Your task to perform on an android device: Show me popular videos on Youtube Image 0: 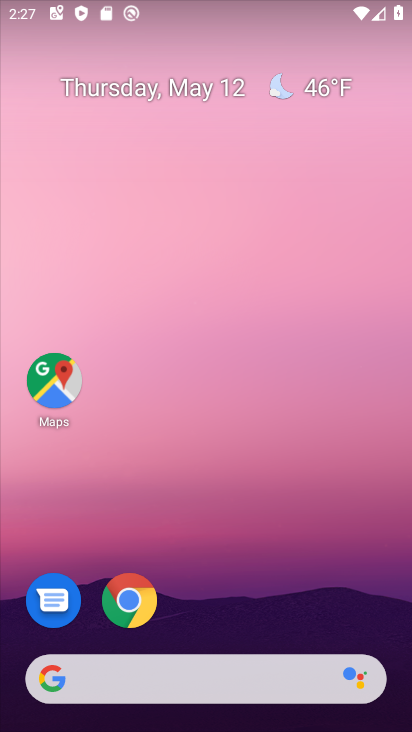
Step 0: drag from (245, 590) to (337, 0)
Your task to perform on an android device: Show me popular videos on Youtube Image 1: 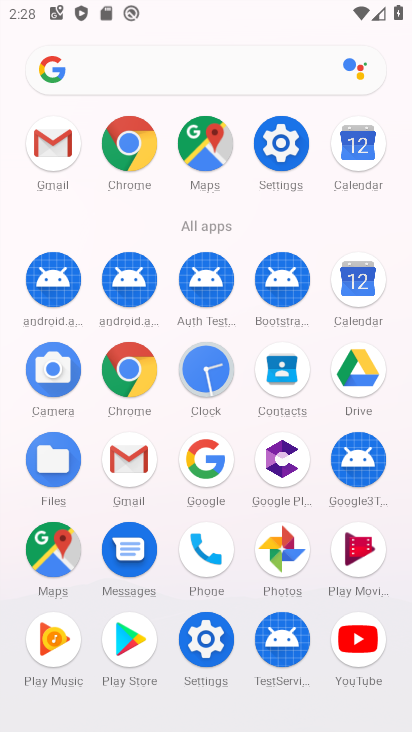
Step 1: click (369, 647)
Your task to perform on an android device: Show me popular videos on Youtube Image 2: 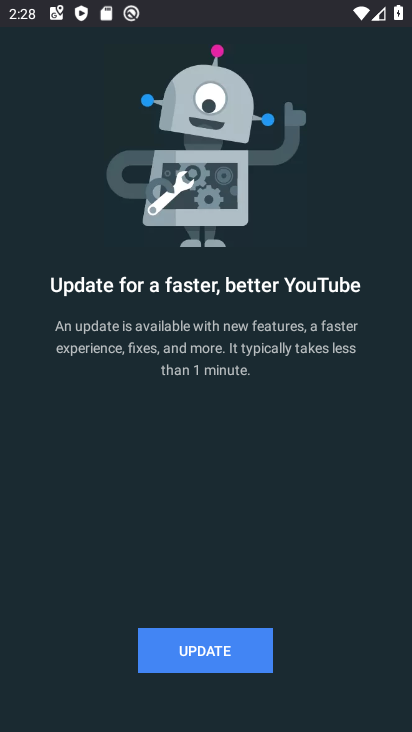
Step 2: click (216, 645)
Your task to perform on an android device: Show me popular videos on Youtube Image 3: 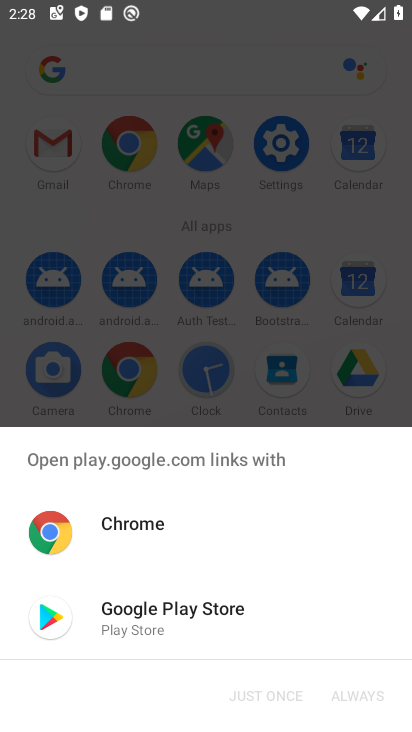
Step 3: click (104, 607)
Your task to perform on an android device: Show me popular videos on Youtube Image 4: 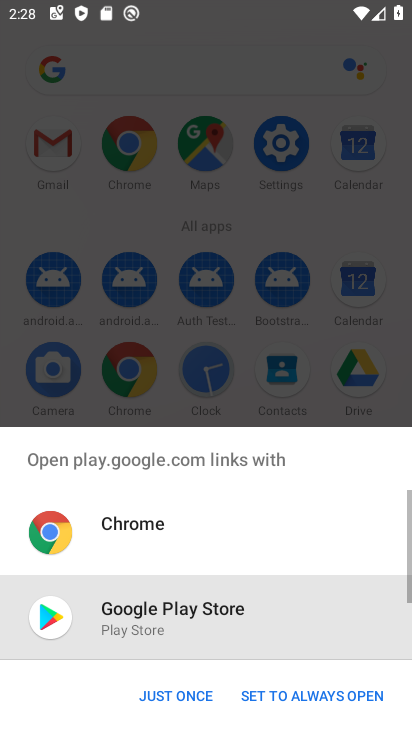
Step 4: click (154, 701)
Your task to perform on an android device: Show me popular videos on Youtube Image 5: 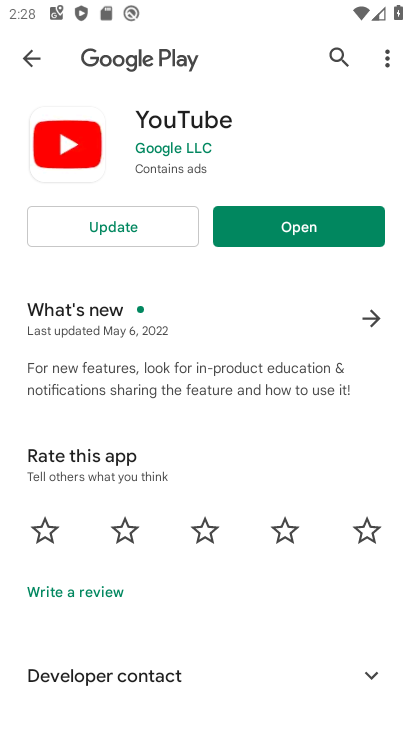
Step 5: click (38, 56)
Your task to perform on an android device: Show me popular videos on Youtube Image 6: 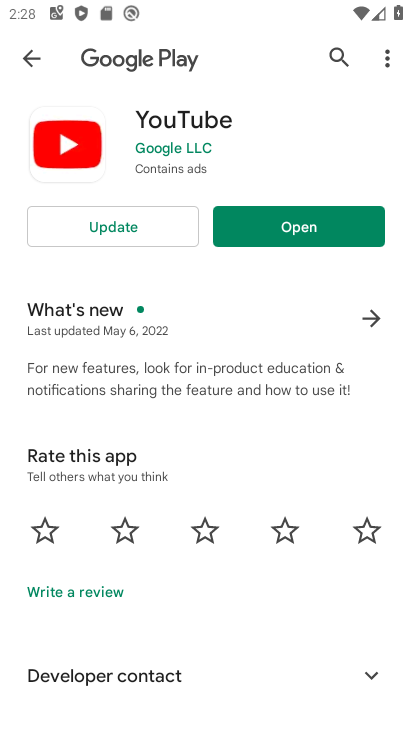
Step 6: click (36, 60)
Your task to perform on an android device: Show me popular videos on Youtube Image 7: 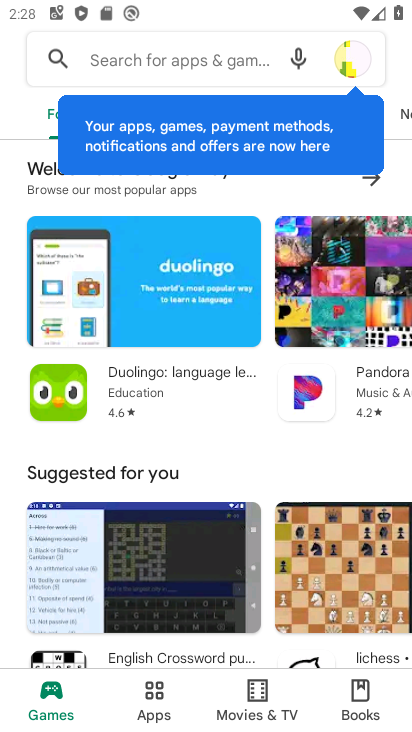
Step 7: click (403, 111)
Your task to perform on an android device: Show me popular videos on Youtube Image 8: 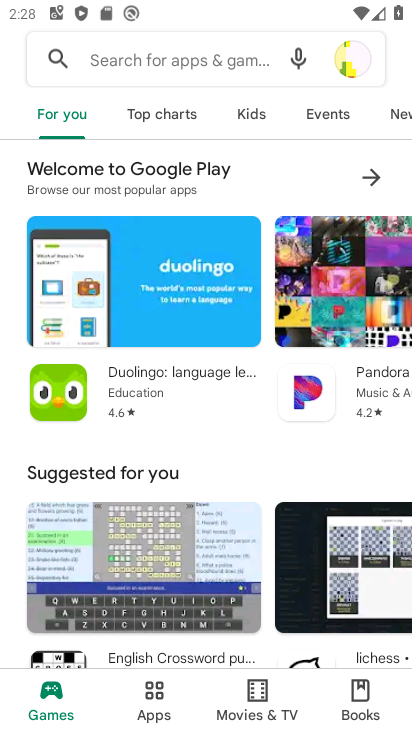
Step 8: click (193, 119)
Your task to perform on an android device: Show me popular videos on Youtube Image 9: 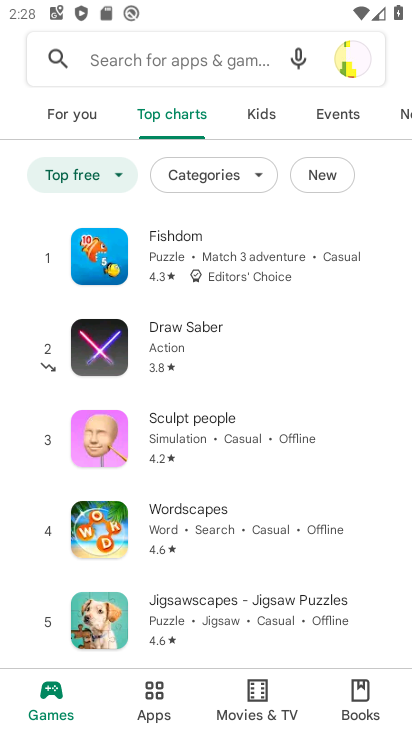
Step 9: drag from (324, 100) to (0, 117)
Your task to perform on an android device: Show me popular videos on Youtube Image 10: 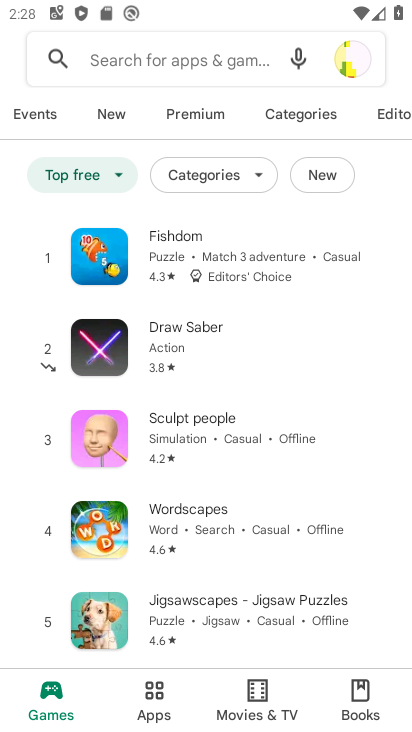
Step 10: drag from (265, 126) to (21, 142)
Your task to perform on an android device: Show me popular videos on Youtube Image 11: 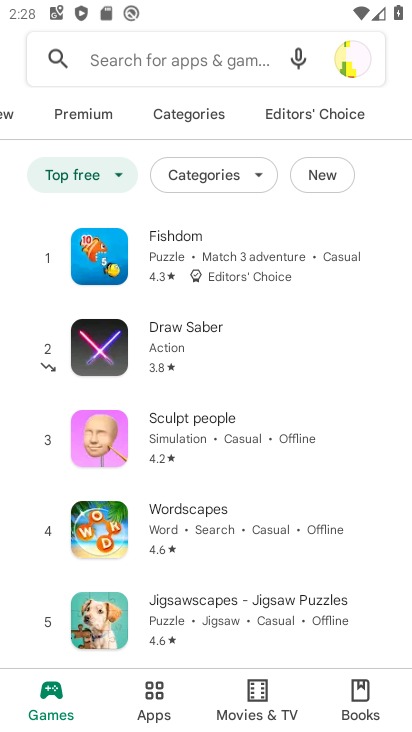
Step 11: drag from (85, 113) to (410, 127)
Your task to perform on an android device: Show me popular videos on Youtube Image 12: 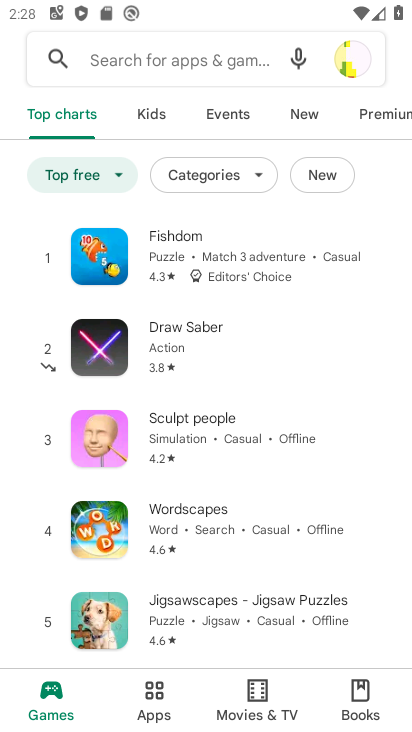
Step 12: click (32, 101)
Your task to perform on an android device: Show me popular videos on Youtube Image 13: 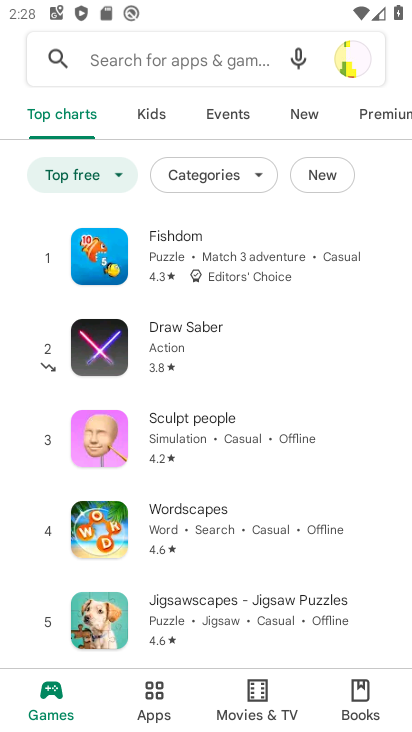
Step 13: task complete